Your task to perform on an android device: turn on translation in the chrome app Image 0: 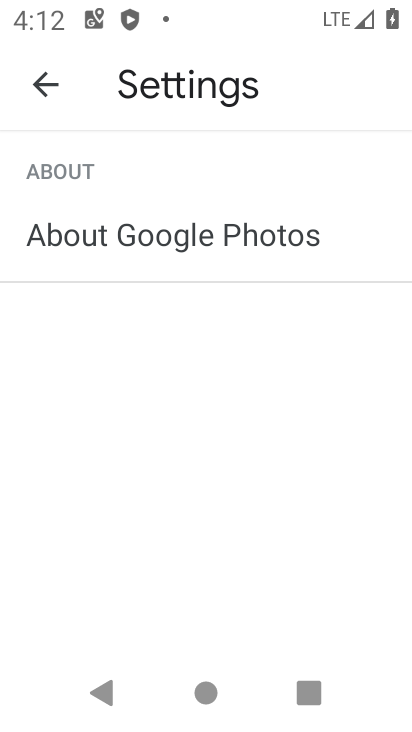
Step 0: press home button
Your task to perform on an android device: turn on translation in the chrome app Image 1: 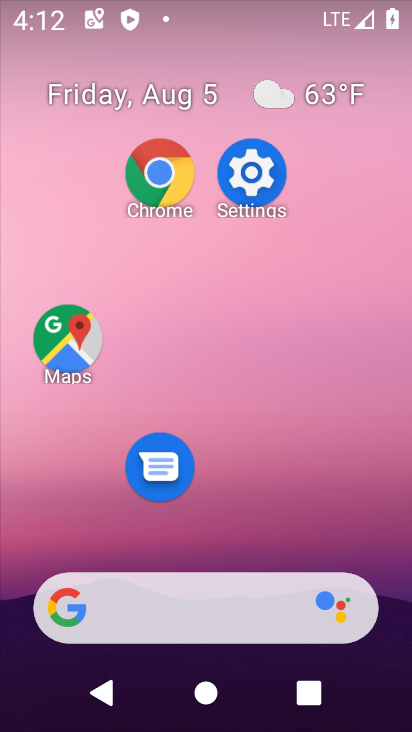
Step 1: drag from (288, 538) to (291, 45)
Your task to perform on an android device: turn on translation in the chrome app Image 2: 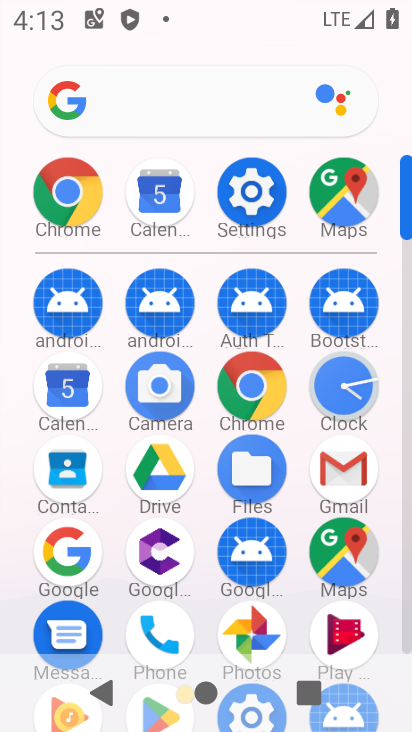
Step 2: click (256, 386)
Your task to perform on an android device: turn on translation in the chrome app Image 3: 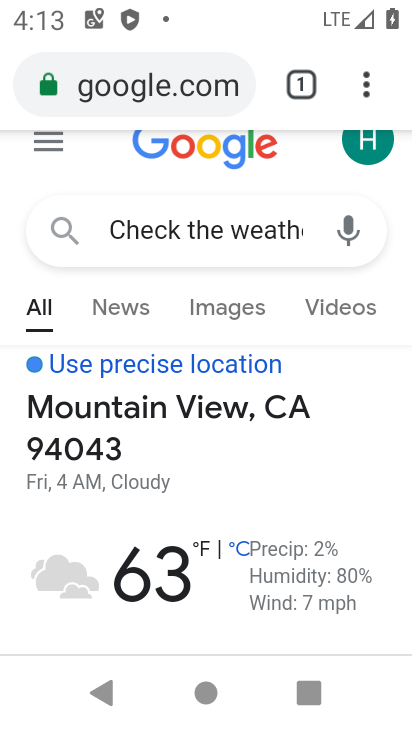
Step 3: click (139, 76)
Your task to perform on an android device: turn on translation in the chrome app Image 4: 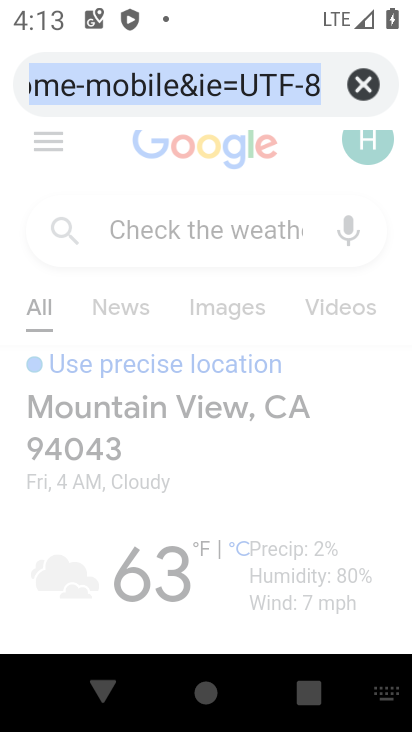
Step 4: click (365, 71)
Your task to perform on an android device: turn on translation in the chrome app Image 5: 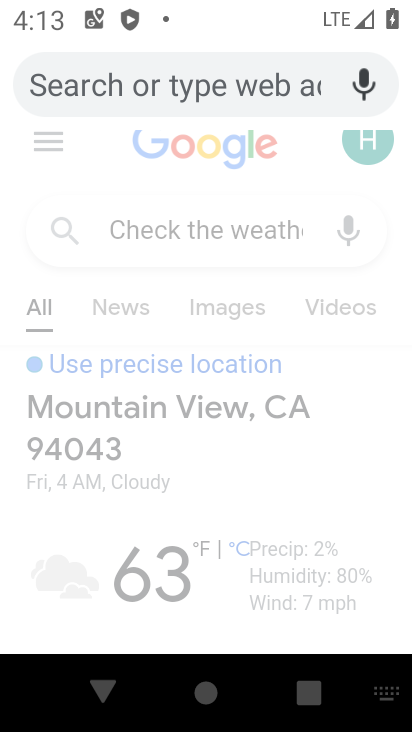
Step 5: press back button
Your task to perform on an android device: turn on translation in the chrome app Image 6: 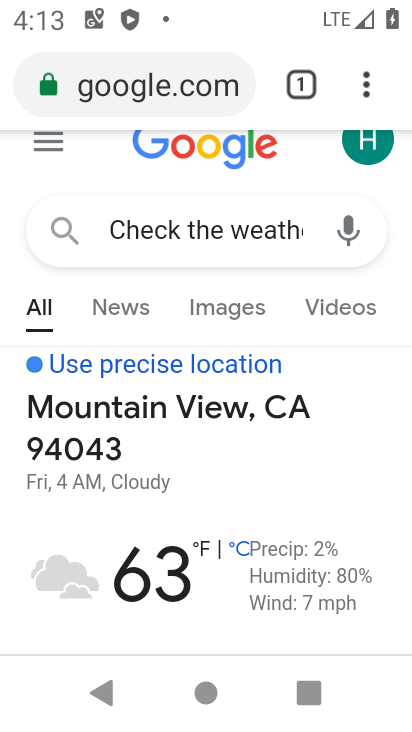
Step 6: drag from (369, 75) to (144, 523)
Your task to perform on an android device: turn on translation in the chrome app Image 7: 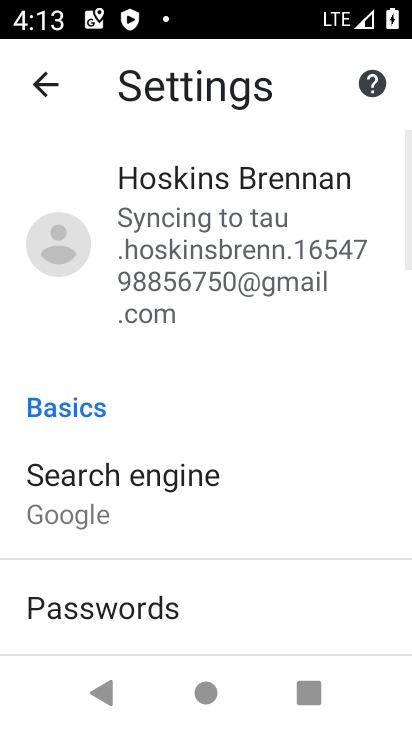
Step 7: drag from (345, 562) to (359, 157)
Your task to perform on an android device: turn on translation in the chrome app Image 8: 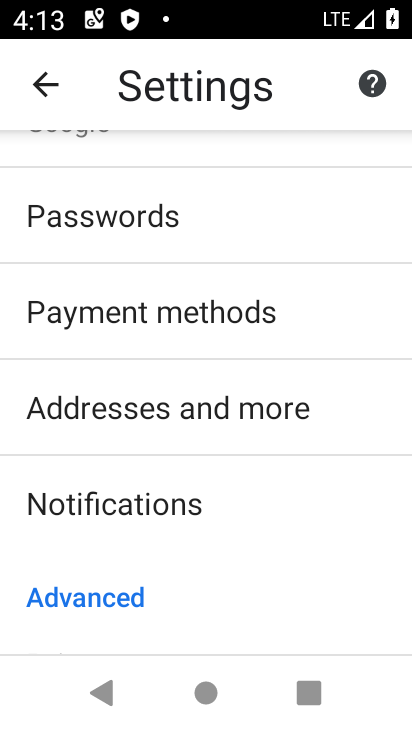
Step 8: drag from (256, 512) to (320, 203)
Your task to perform on an android device: turn on translation in the chrome app Image 9: 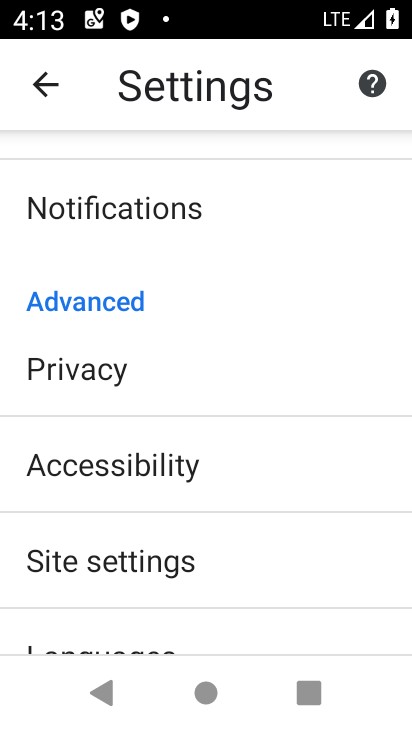
Step 9: drag from (276, 519) to (297, 196)
Your task to perform on an android device: turn on translation in the chrome app Image 10: 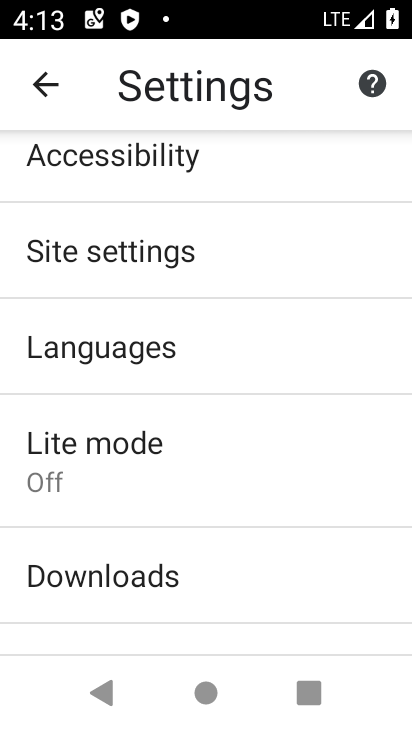
Step 10: click (131, 339)
Your task to perform on an android device: turn on translation in the chrome app Image 11: 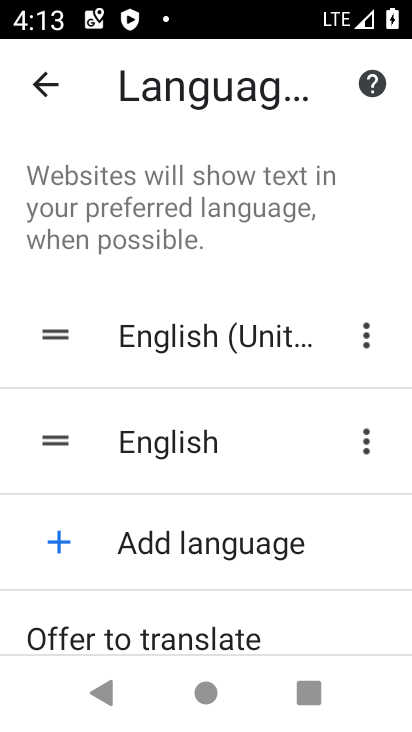
Step 11: drag from (208, 597) to (287, 269)
Your task to perform on an android device: turn on translation in the chrome app Image 12: 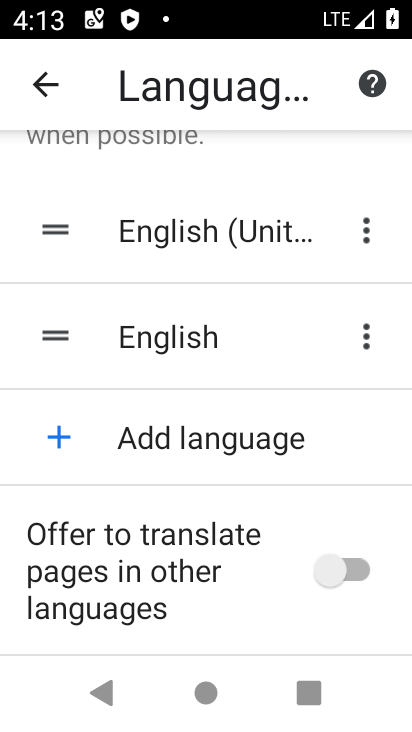
Step 12: click (263, 561)
Your task to perform on an android device: turn on translation in the chrome app Image 13: 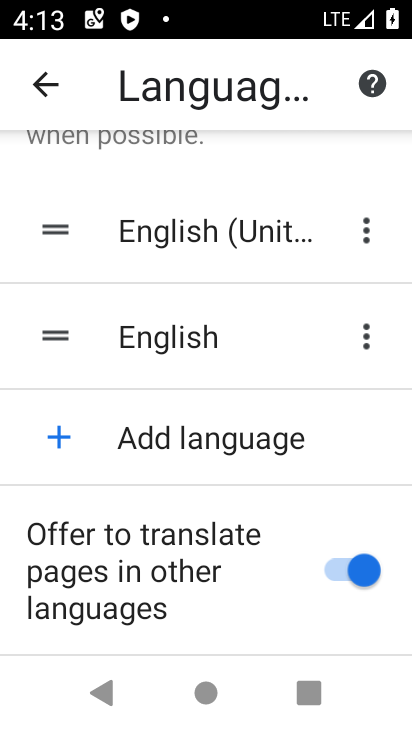
Step 13: task complete